Your task to perform on an android device: turn on the 12-hour format for clock Image 0: 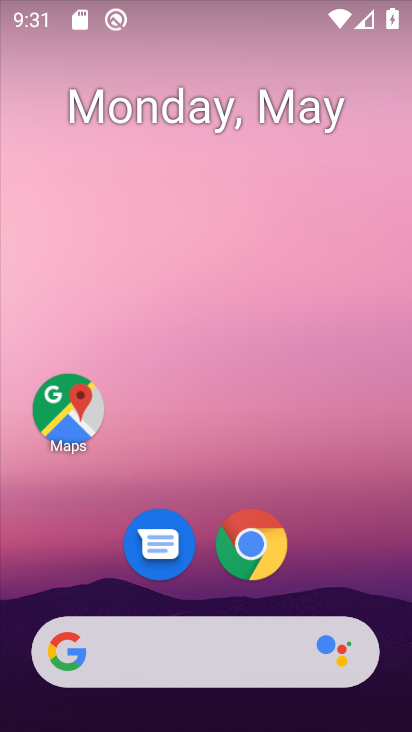
Step 0: drag from (379, 568) to (336, 136)
Your task to perform on an android device: turn on the 12-hour format for clock Image 1: 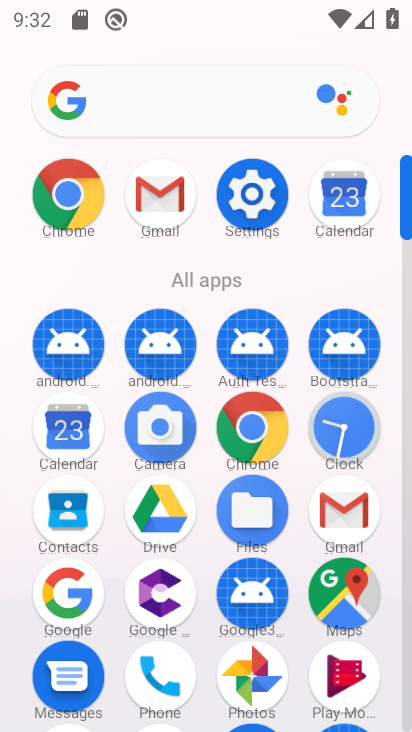
Step 1: click (365, 417)
Your task to perform on an android device: turn on the 12-hour format for clock Image 2: 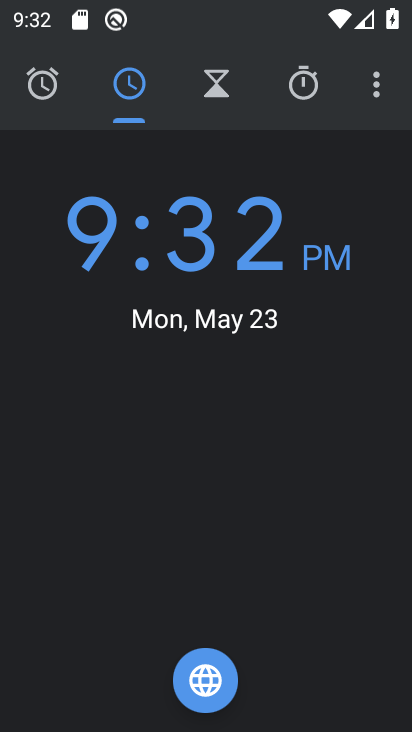
Step 2: click (378, 95)
Your task to perform on an android device: turn on the 12-hour format for clock Image 3: 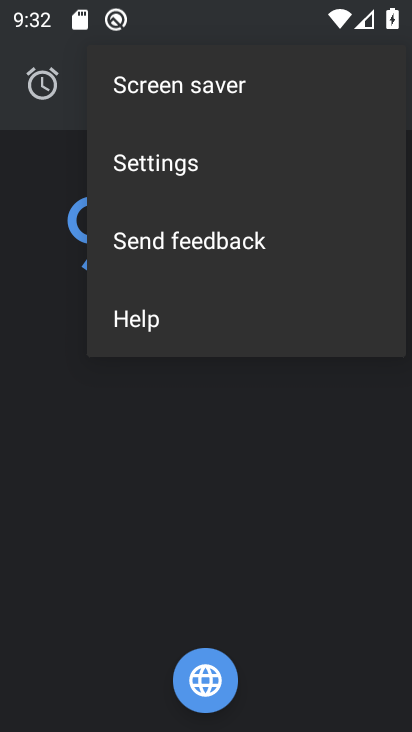
Step 3: click (207, 172)
Your task to perform on an android device: turn on the 12-hour format for clock Image 4: 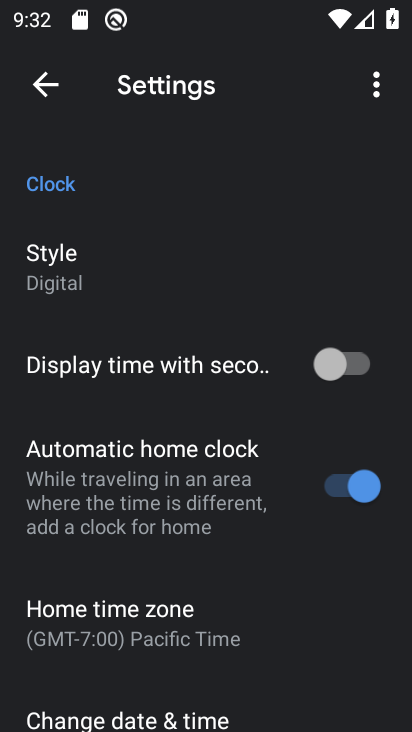
Step 4: drag from (146, 683) to (121, 250)
Your task to perform on an android device: turn on the 12-hour format for clock Image 5: 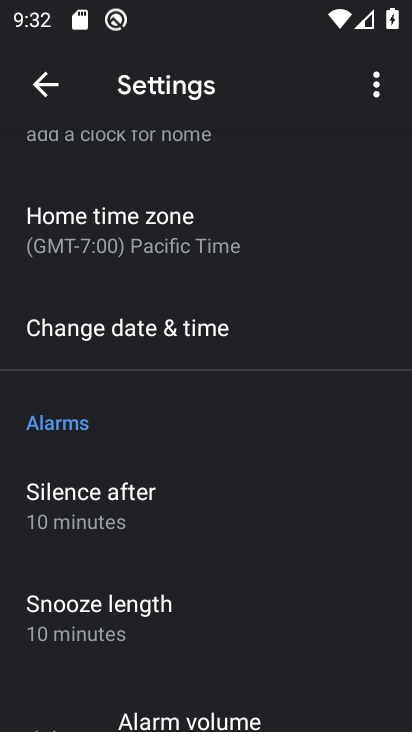
Step 5: click (121, 347)
Your task to perform on an android device: turn on the 12-hour format for clock Image 6: 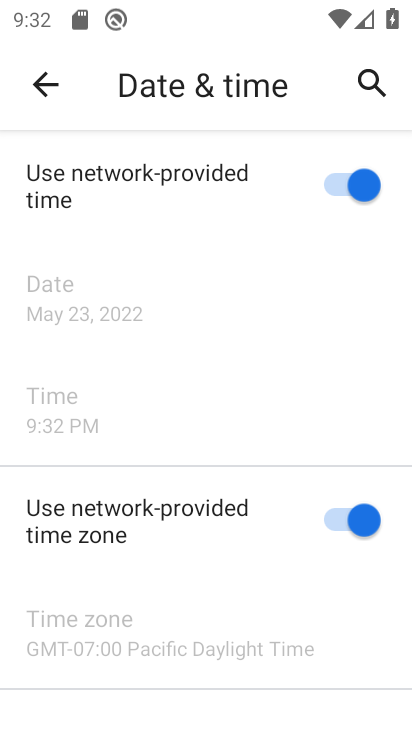
Step 6: task complete